Your task to perform on an android device: toggle improve location accuracy Image 0: 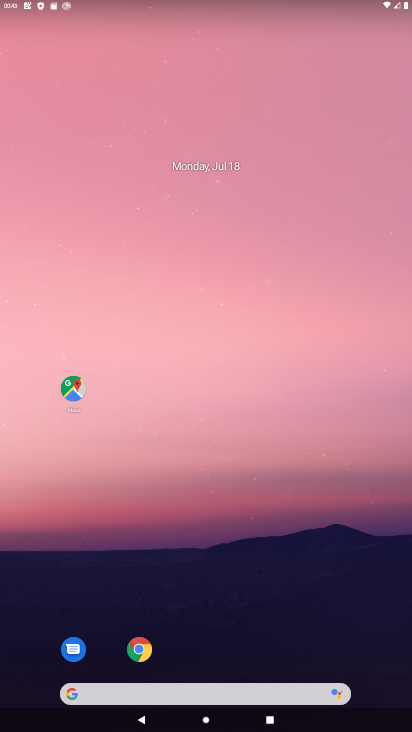
Step 0: drag from (178, 621) to (172, 122)
Your task to perform on an android device: toggle improve location accuracy Image 1: 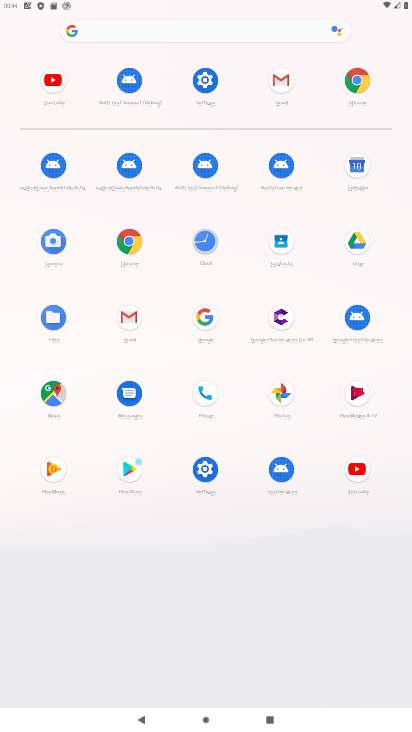
Step 1: click (199, 80)
Your task to perform on an android device: toggle improve location accuracy Image 2: 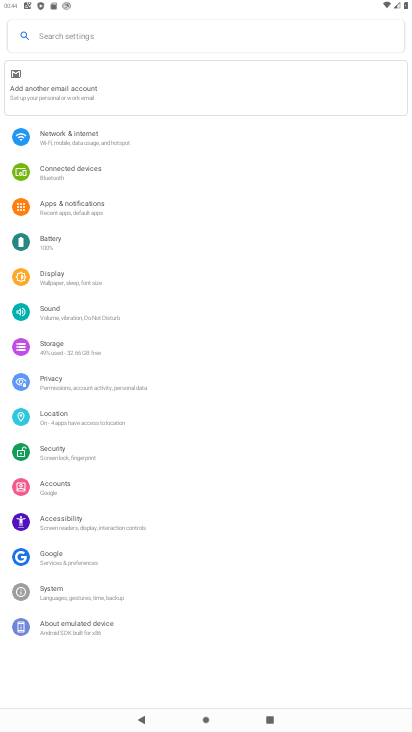
Step 2: click (69, 421)
Your task to perform on an android device: toggle improve location accuracy Image 3: 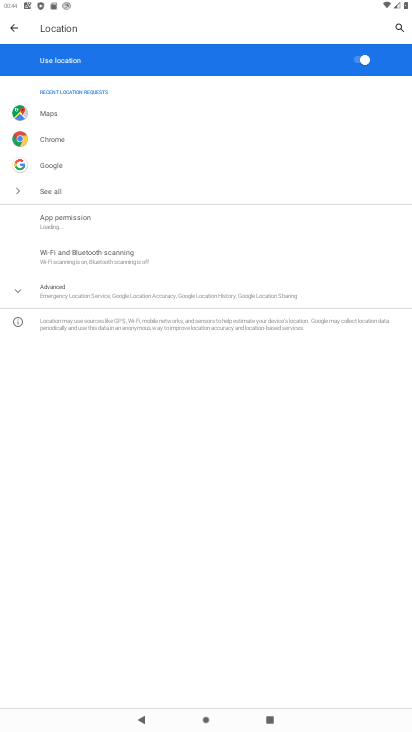
Step 3: click (50, 296)
Your task to perform on an android device: toggle improve location accuracy Image 4: 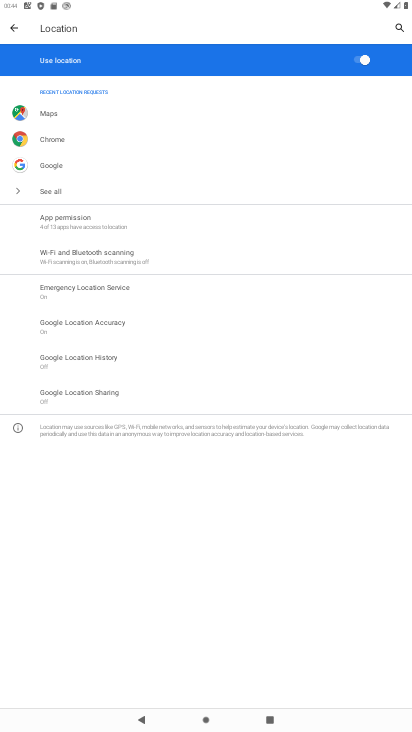
Step 4: click (91, 326)
Your task to perform on an android device: toggle improve location accuracy Image 5: 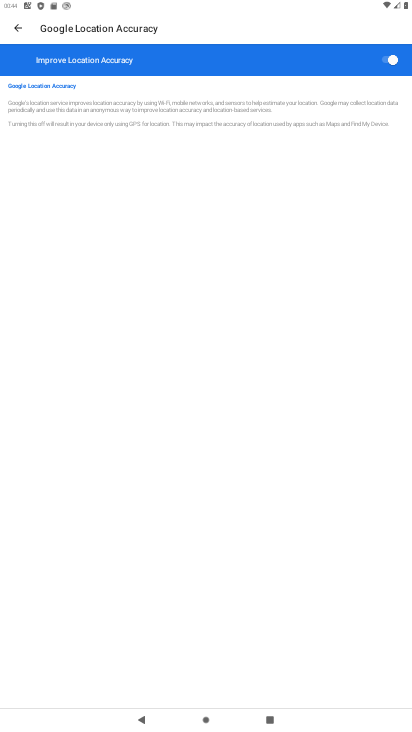
Step 5: click (386, 56)
Your task to perform on an android device: toggle improve location accuracy Image 6: 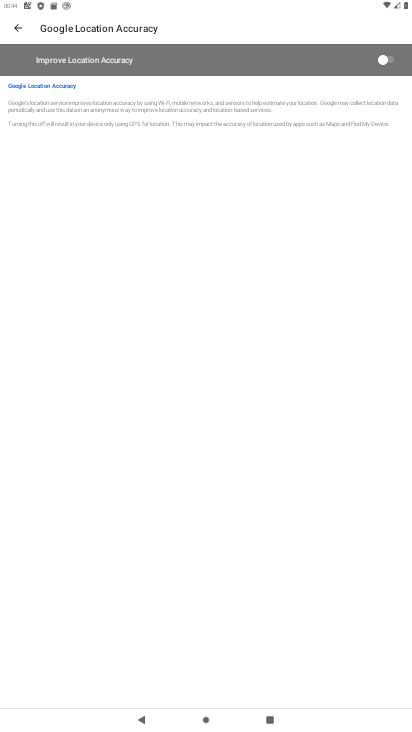
Step 6: task complete